Your task to perform on an android device: install app "Google Sheets" Image 0: 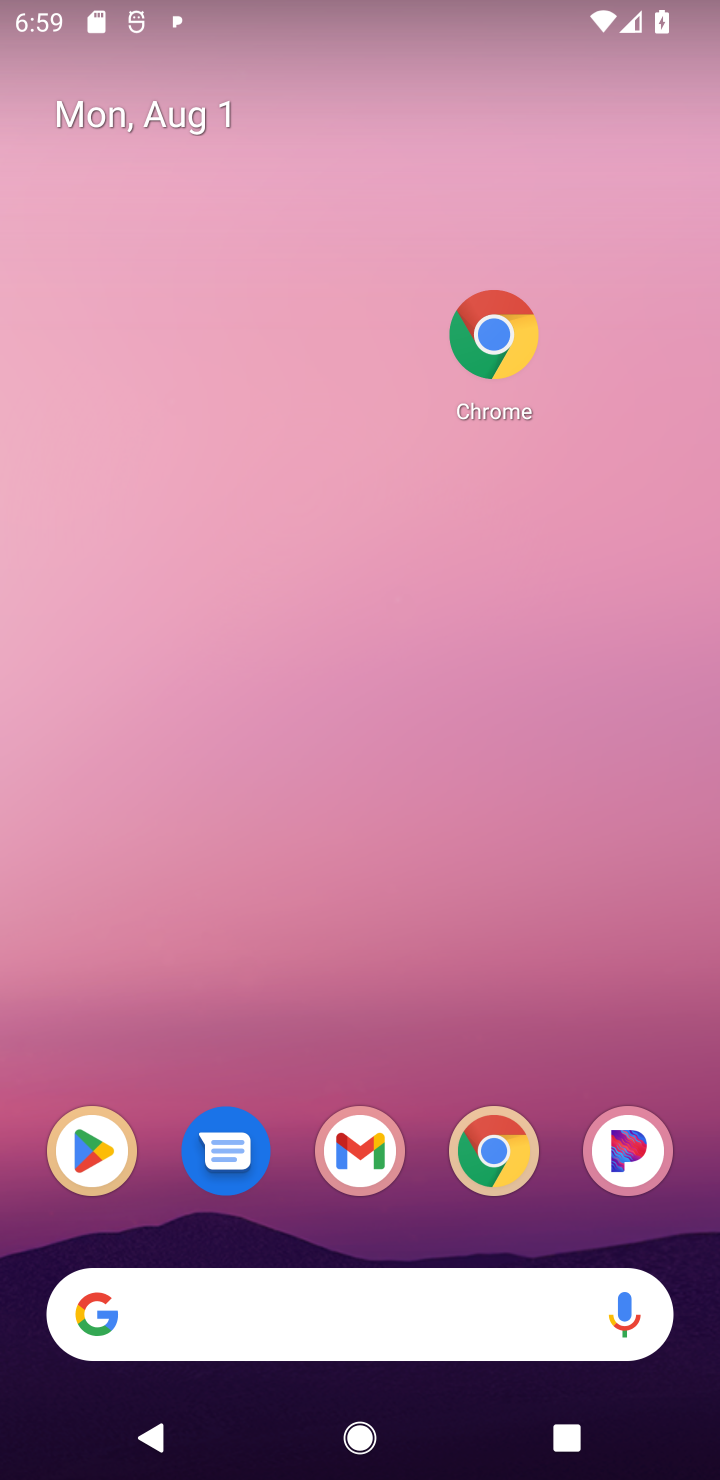
Step 0: click (96, 1159)
Your task to perform on an android device: install app "Google Sheets" Image 1: 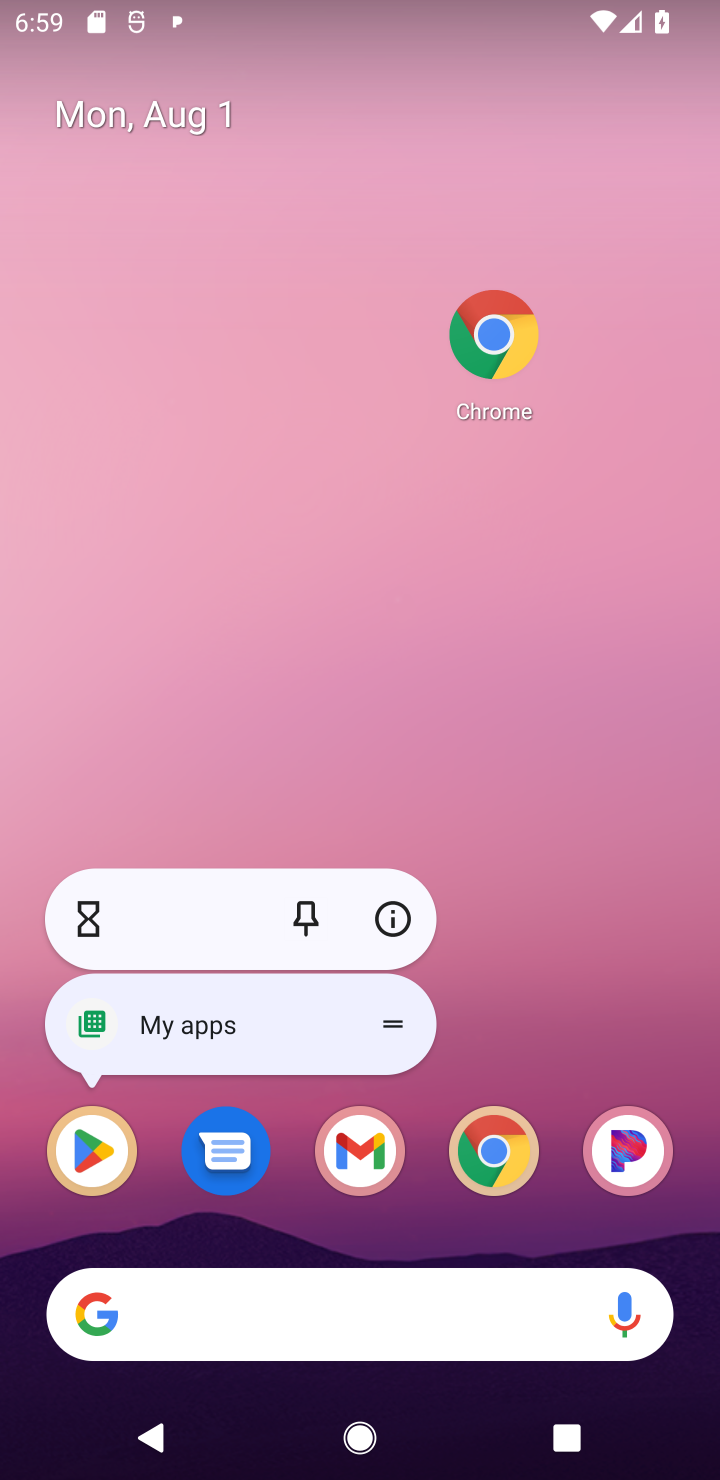
Step 1: click (94, 1163)
Your task to perform on an android device: install app "Google Sheets" Image 2: 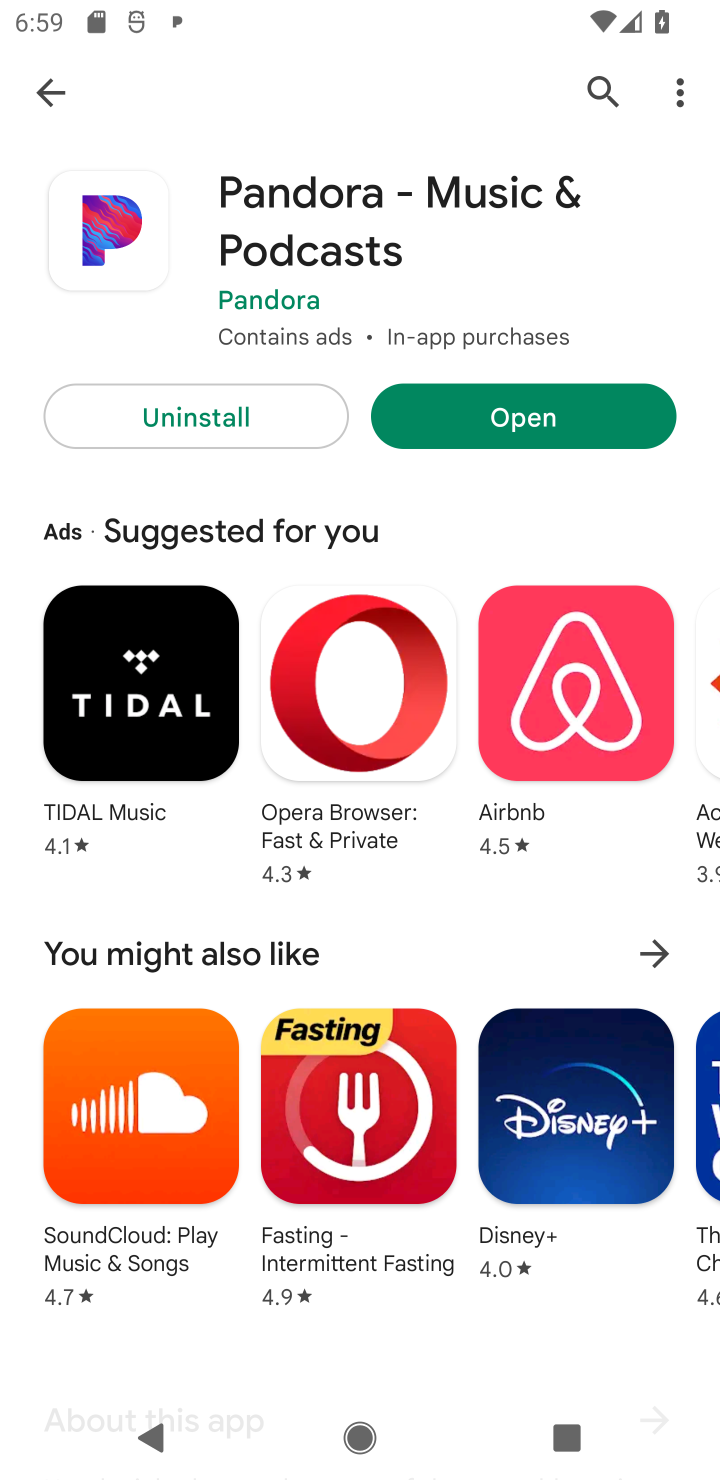
Step 2: click (587, 94)
Your task to perform on an android device: install app "Google Sheets" Image 3: 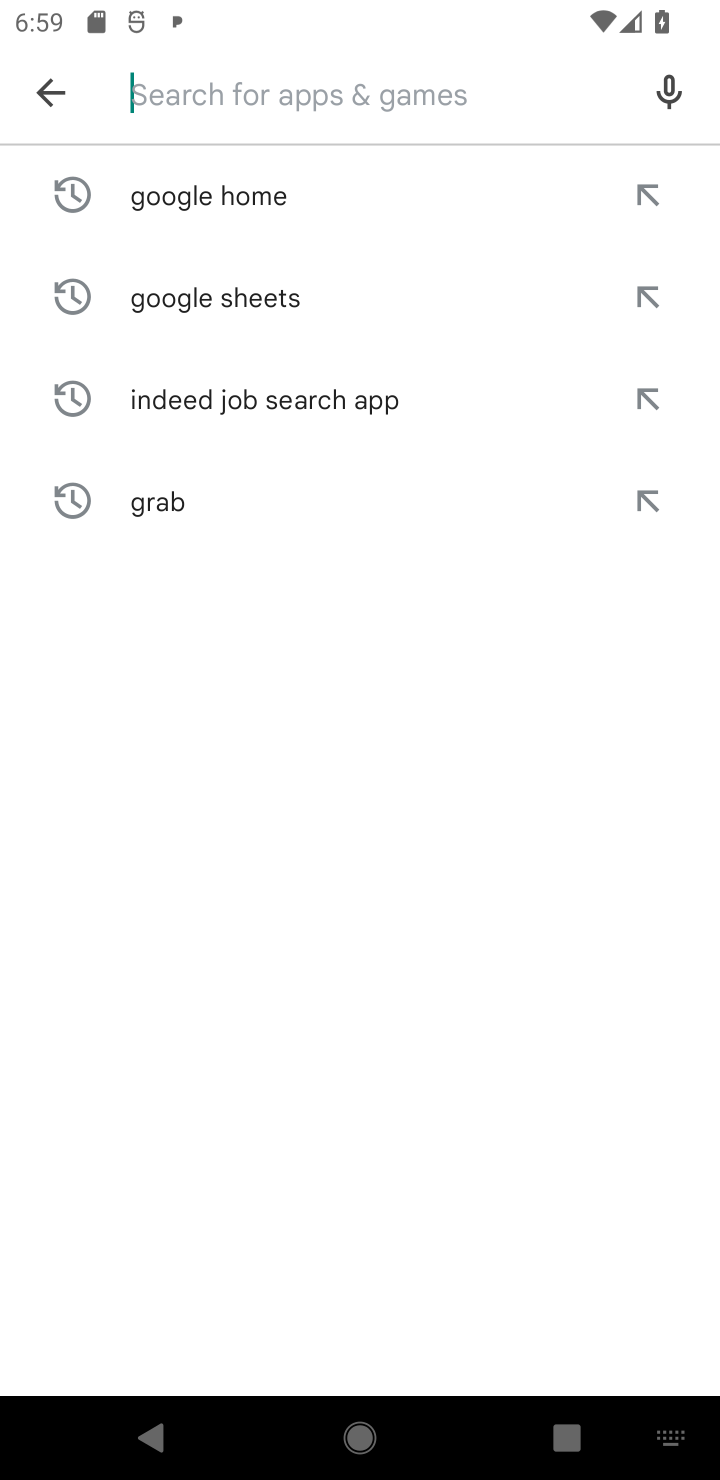
Step 3: click (473, 102)
Your task to perform on an android device: install app "Google Sheets" Image 4: 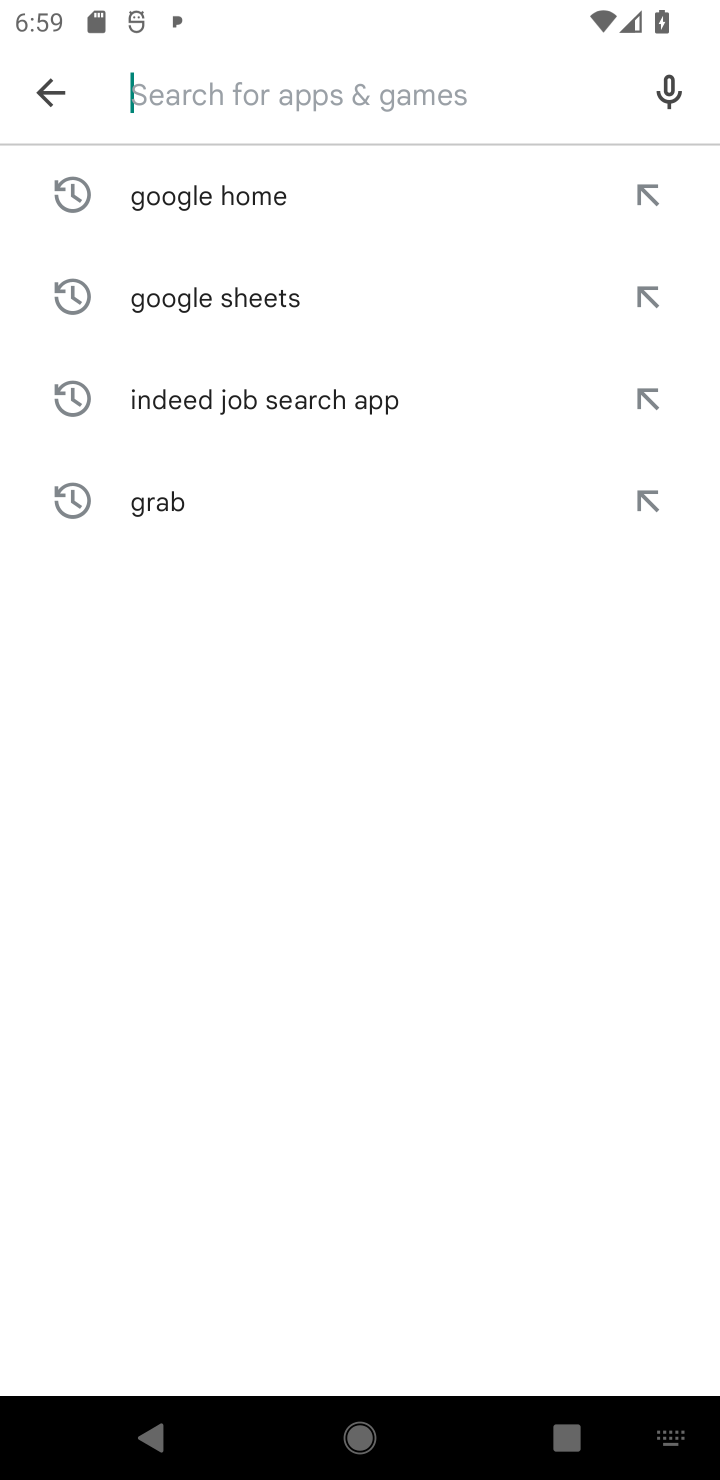
Step 4: type "Google Sheets"
Your task to perform on an android device: install app "Google Sheets" Image 5: 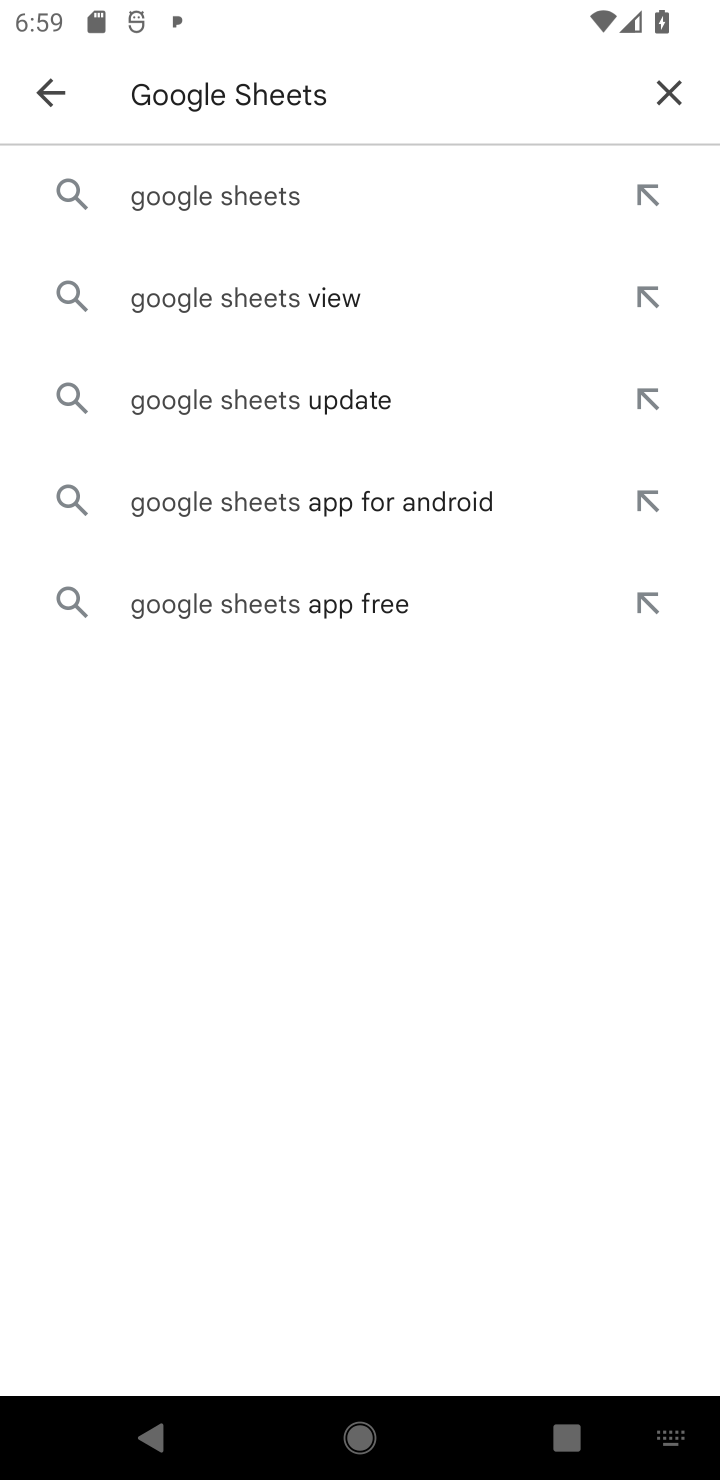
Step 5: click (281, 199)
Your task to perform on an android device: install app "Google Sheets" Image 6: 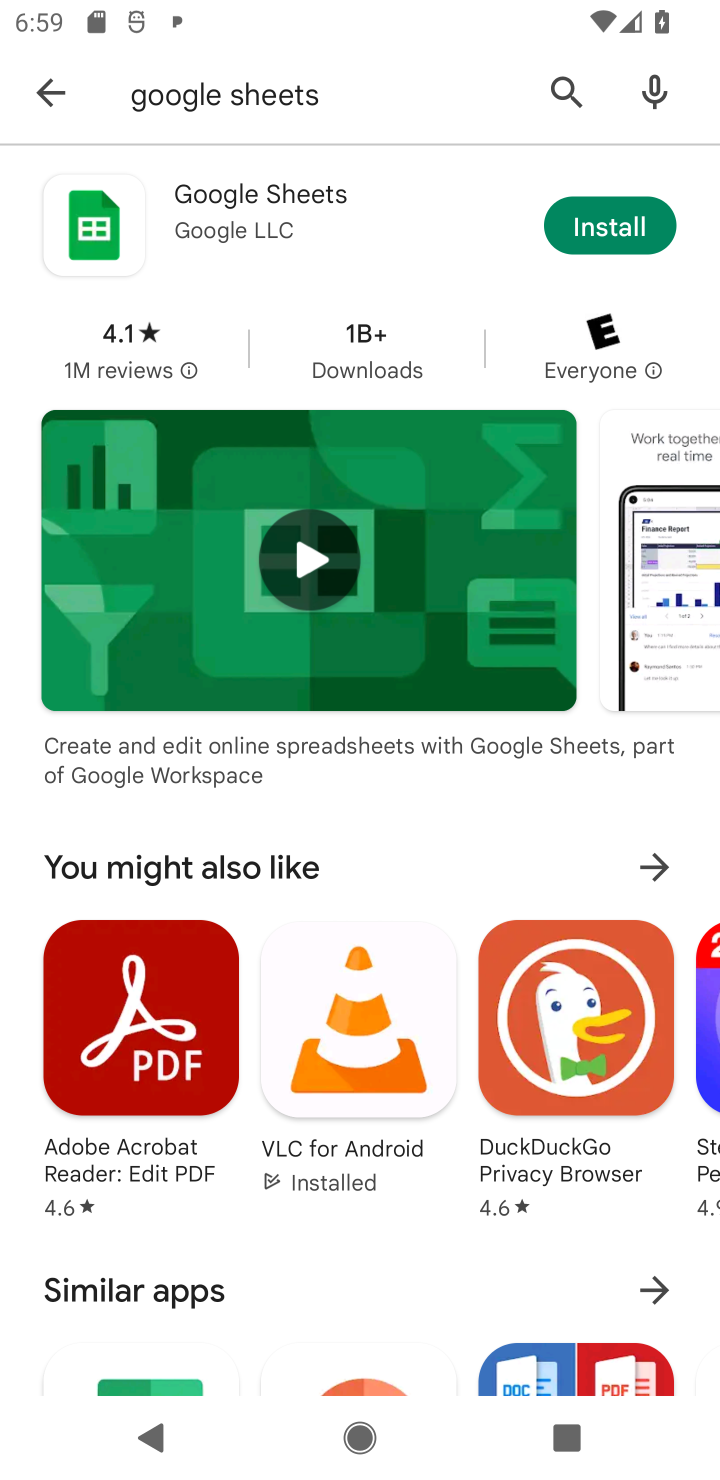
Step 6: click (617, 239)
Your task to perform on an android device: install app "Google Sheets" Image 7: 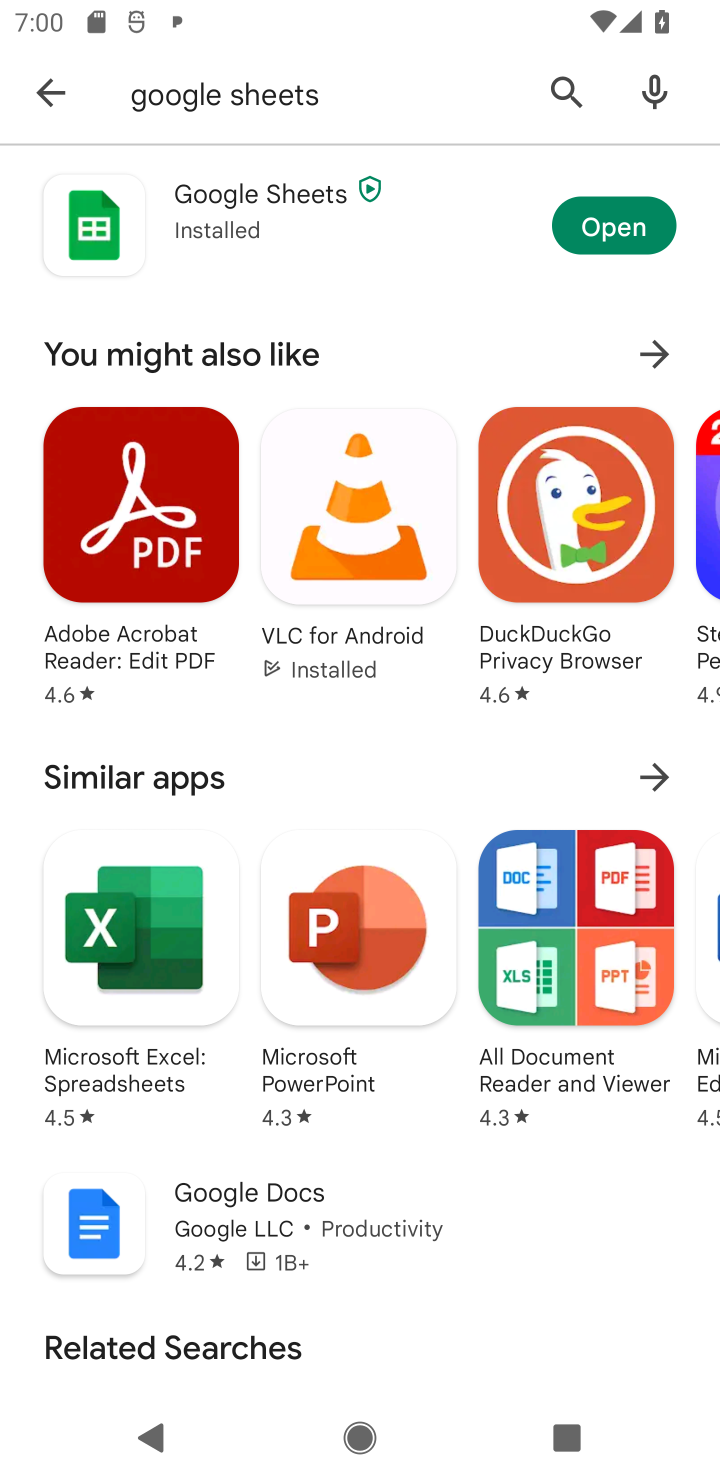
Step 7: task complete